Your task to perform on an android device: Open the web browser Image 0: 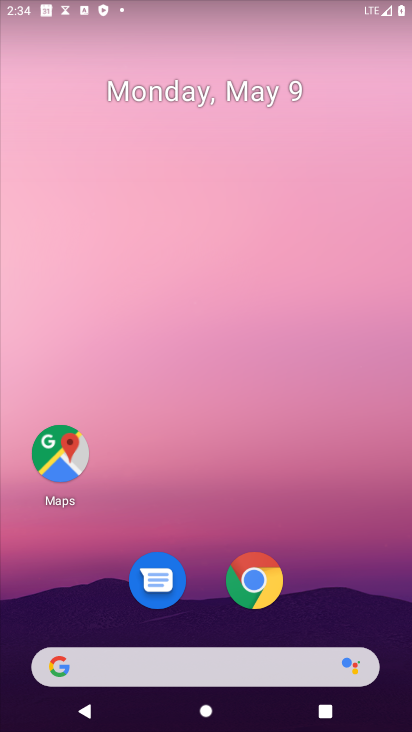
Step 0: click (259, 588)
Your task to perform on an android device: Open the web browser Image 1: 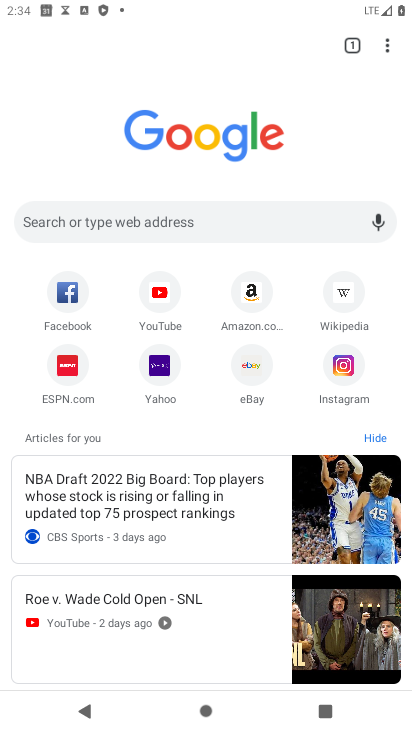
Step 1: task complete